Your task to perform on an android device: open app "Adobe Express: Graphic Design" (install if not already installed) Image 0: 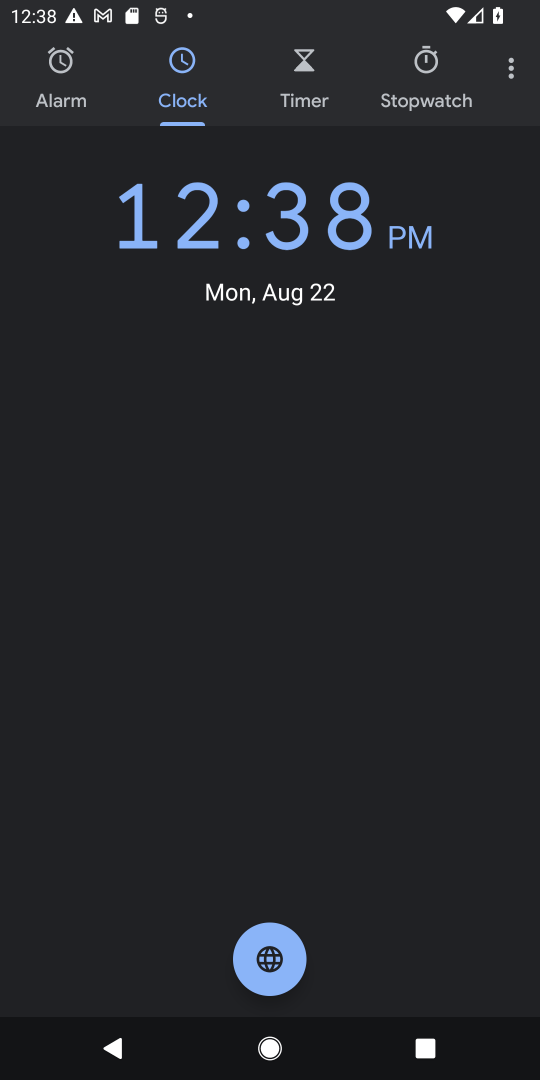
Step 0: press home button
Your task to perform on an android device: open app "Adobe Express: Graphic Design" (install if not already installed) Image 1: 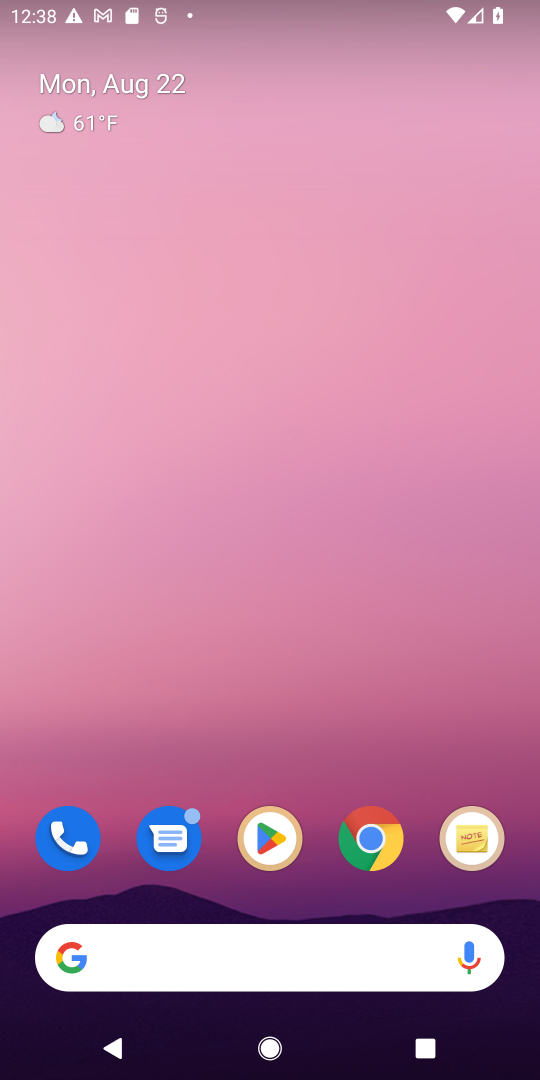
Step 1: drag from (257, 656) to (270, 150)
Your task to perform on an android device: open app "Adobe Express: Graphic Design" (install if not already installed) Image 2: 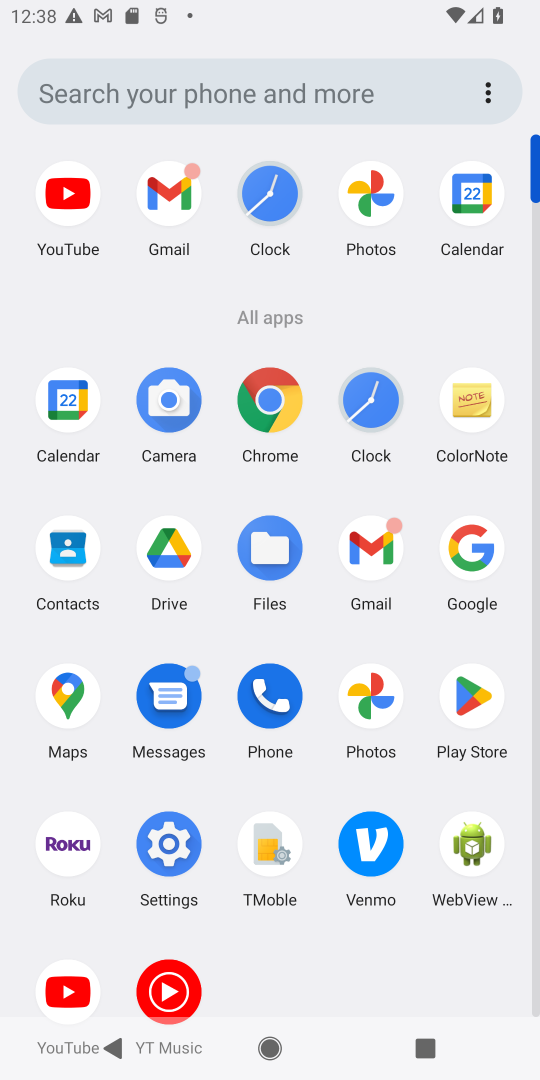
Step 2: click (459, 692)
Your task to perform on an android device: open app "Adobe Express: Graphic Design" (install if not already installed) Image 3: 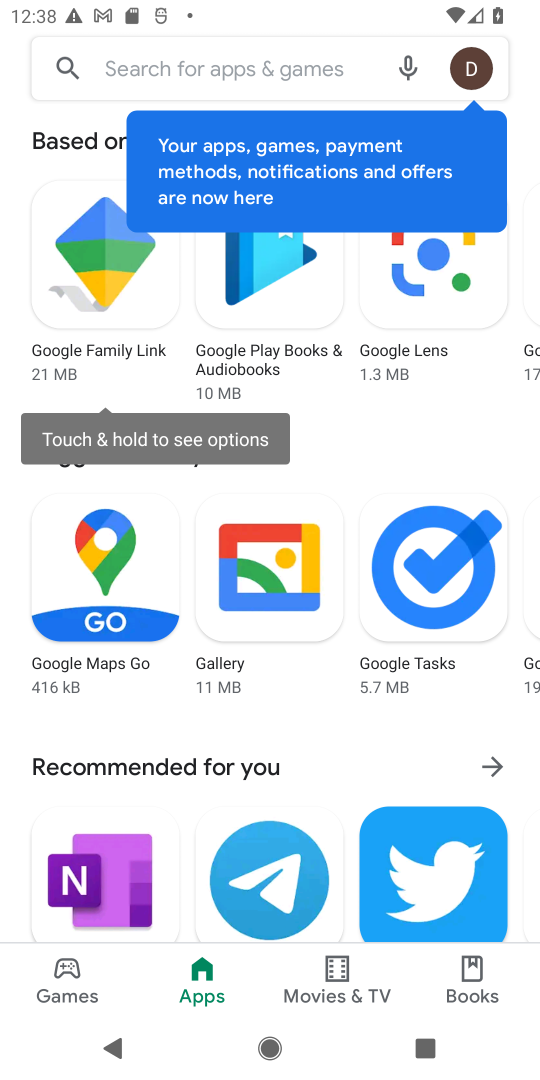
Step 3: click (201, 59)
Your task to perform on an android device: open app "Adobe Express: Graphic Design" (install if not already installed) Image 4: 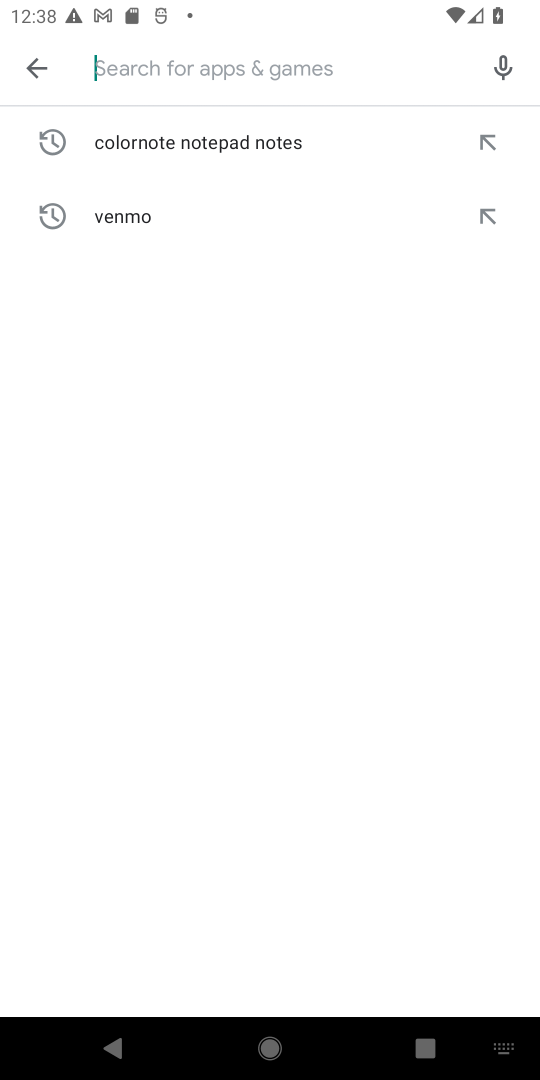
Step 4: type "Adobe Express: Graphic Design"
Your task to perform on an android device: open app "Adobe Express: Graphic Design" (install if not already installed) Image 5: 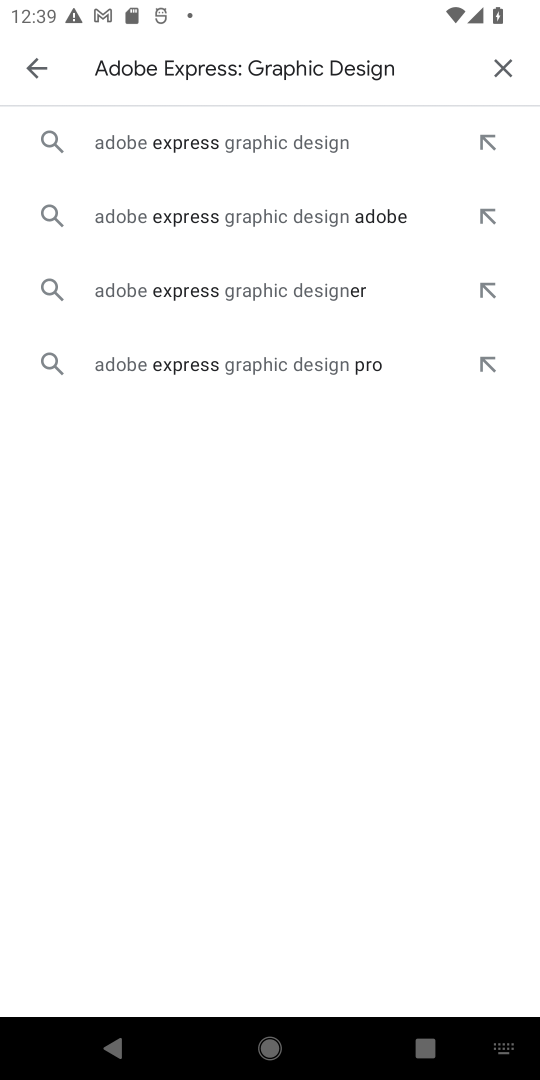
Step 5: click (184, 139)
Your task to perform on an android device: open app "Adobe Express: Graphic Design" (install if not already installed) Image 6: 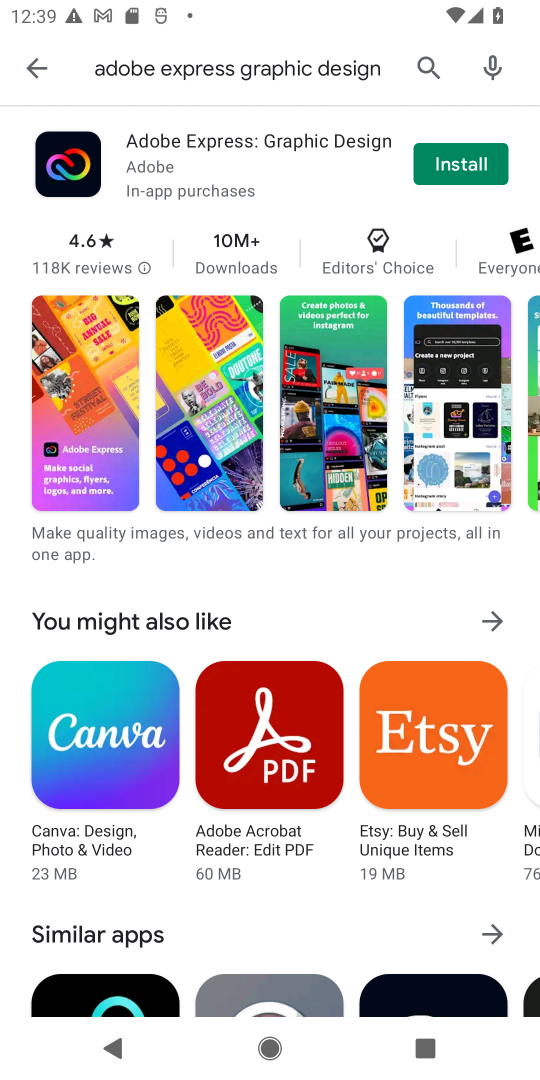
Step 6: click (445, 161)
Your task to perform on an android device: open app "Adobe Express: Graphic Design" (install if not already installed) Image 7: 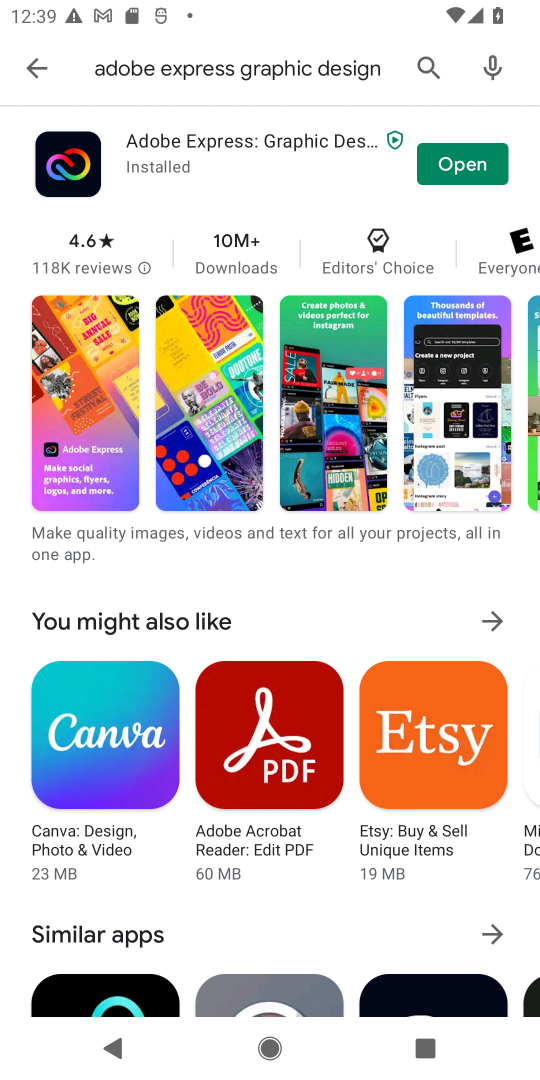
Step 7: click (441, 172)
Your task to perform on an android device: open app "Adobe Express: Graphic Design" (install if not already installed) Image 8: 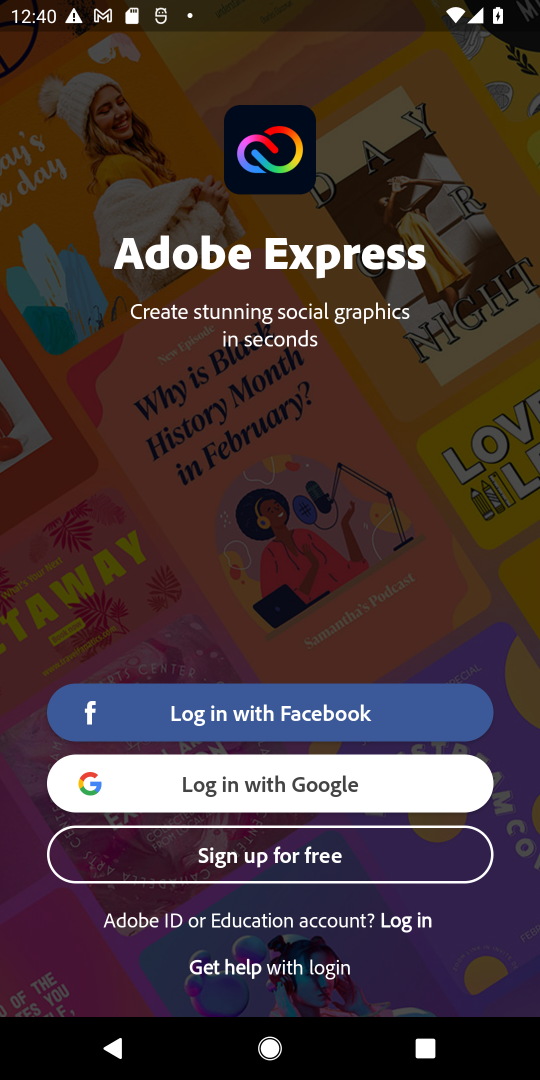
Step 8: task complete